Your task to perform on an android device: toggle airplane mode Image 0: 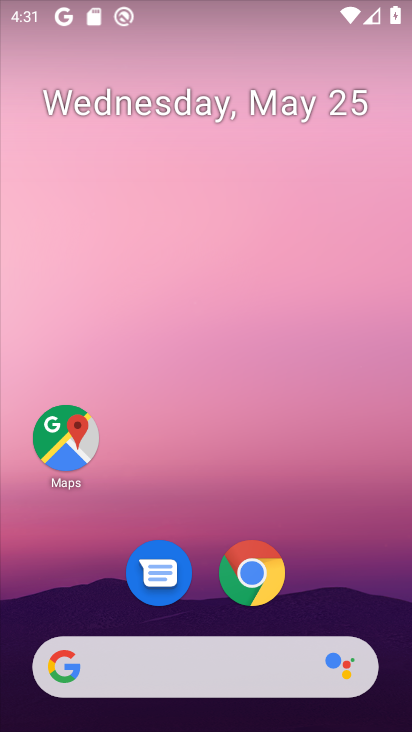
Step 0: drag from (215, 711) to (216, 222)
Your task to perform on an android device: toggle airplane mode Image 1: 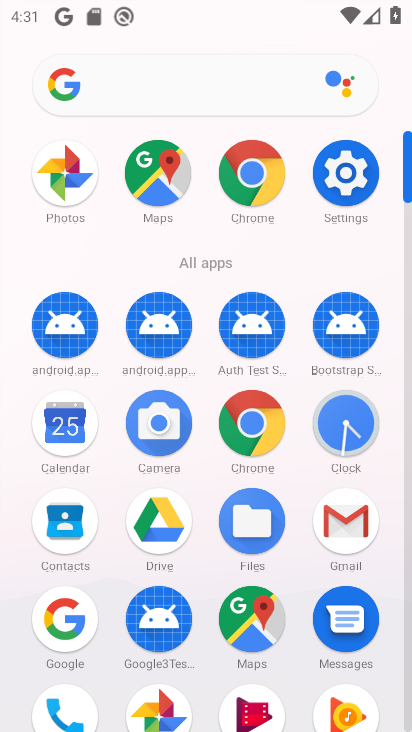
Step 1: click (338, 177)
Your task to perform on an android device: toggle airplane mode Image 2: 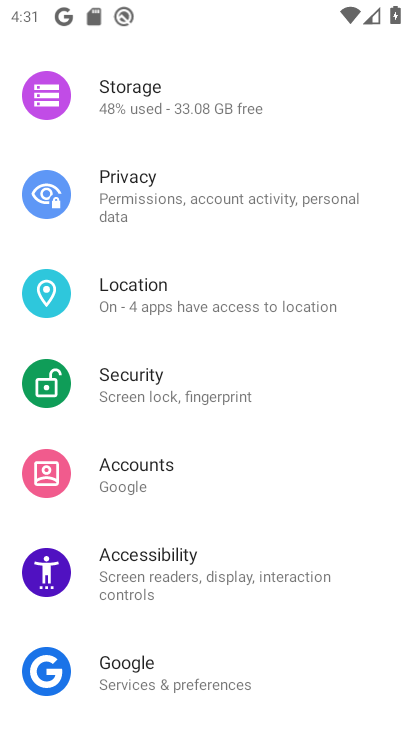
Step 2: drag from (251, 147) to (230, 428)
Your task to perform on an android device: toggle airplane mode Image 3: 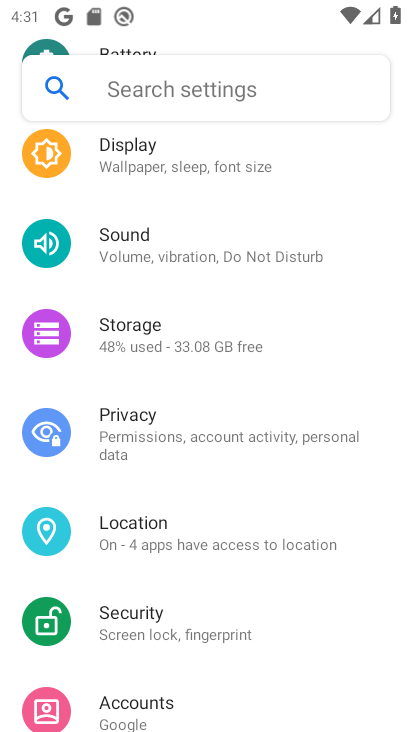
Step 3: drag from (205, 192) to (220, 554)
Your task to perform on an android device: toggle airplane mode Image 4: 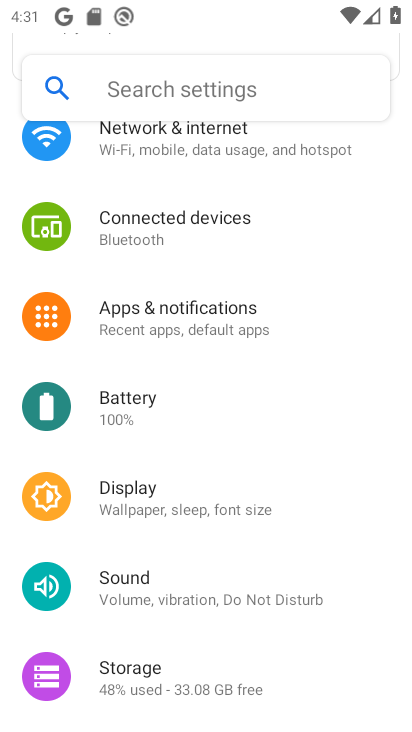
Step 4: drag from (217, 232) to (230, 534)
Your task to perform on an android device: toggle airplane mode Image 5: 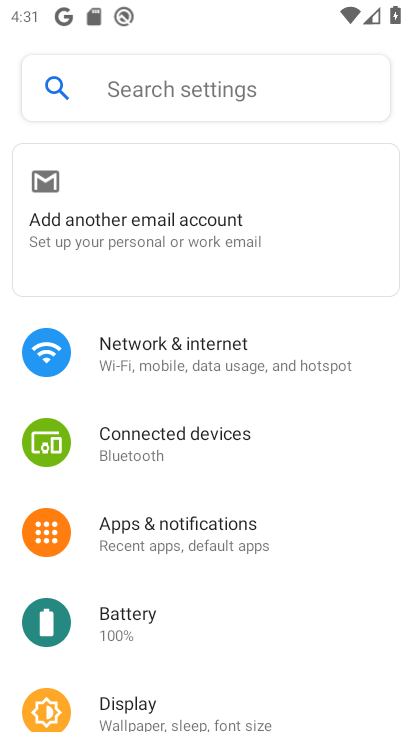
Step 5: click (148, 363)
Your task to perform on an android device: toggle airplane mode Image 6: 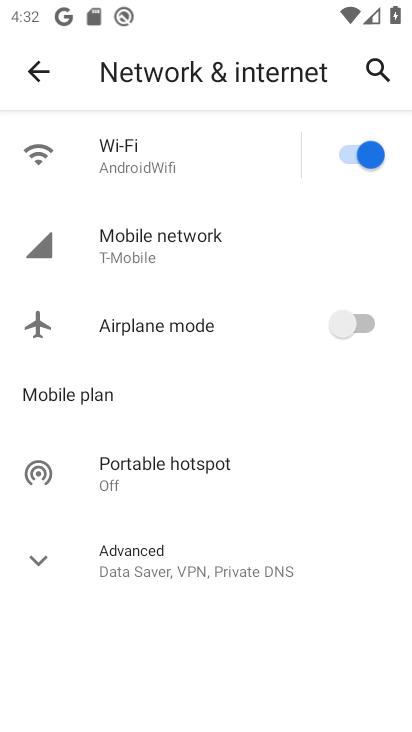
Step 6: click (357, 324)
Your task to perform on an android device: toggle airplane mode Image 7: 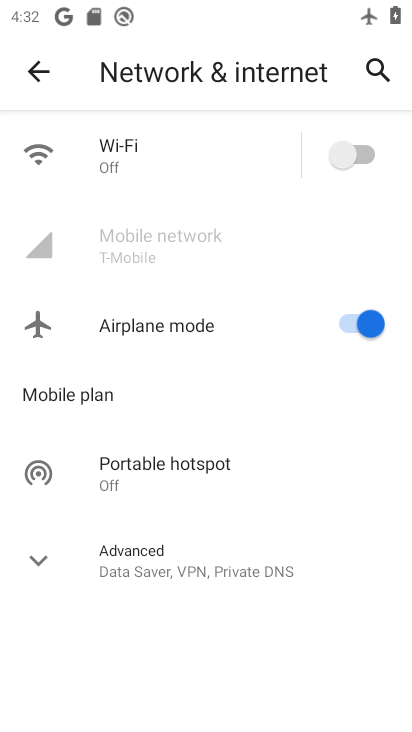
Step 7: task complete